Your task to perform on an android device: change the clock display to digital Image 0: 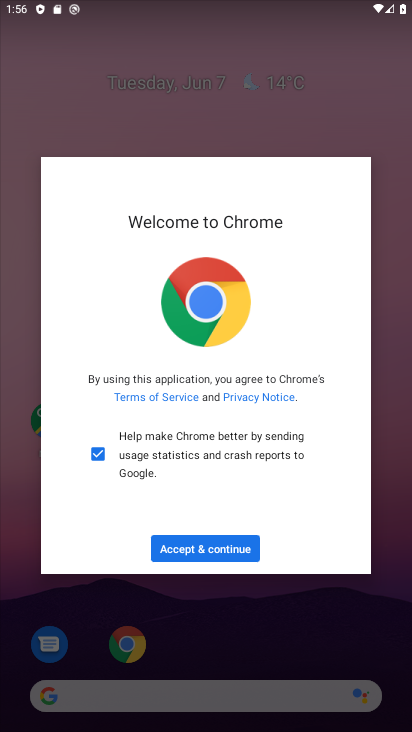
Step 0: press home button
Your task to perform on an android device: change the clock display to digital Image 1: 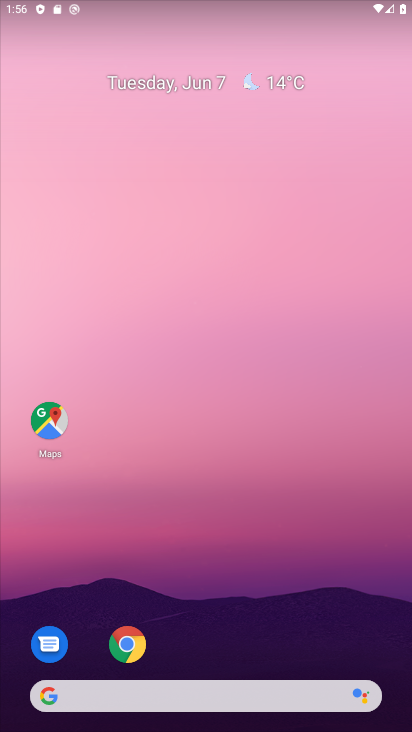
Step 1: drag from (361, 611) to (378, 156)
Your task to perform on an android device: change the clock display to digital Image 2: 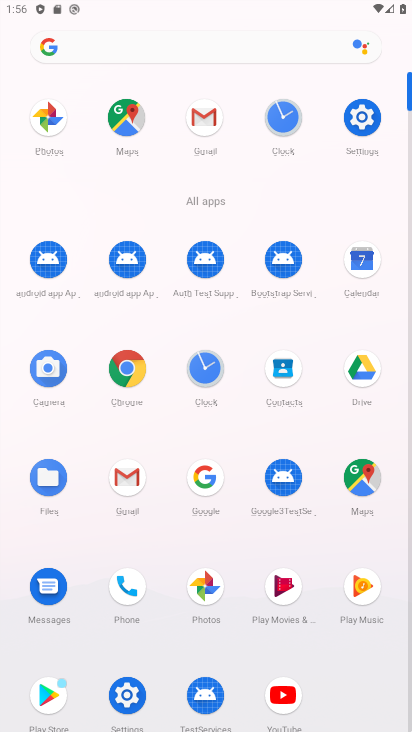
Step 2: click (211, 379)
Your task to perform on an android device: change the clock display to digital Image 3: 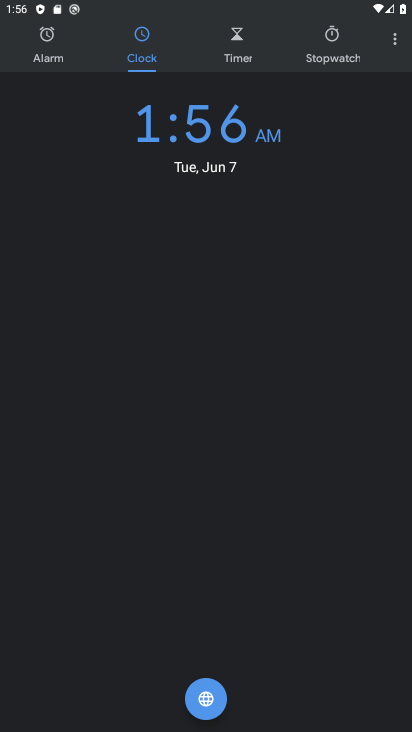
Step 3: click (394, 43)
Your task to perform on an android device: change the clock display to digital Image 4: 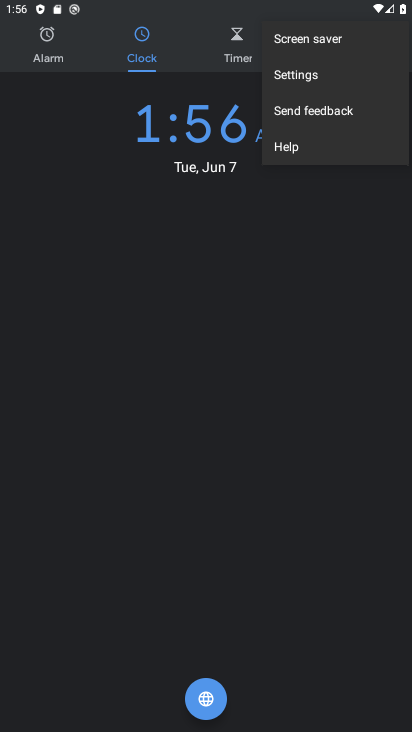
Step 4: click (311, 84)
Your task to perform on an android device: change the clock display to digital Image 5: 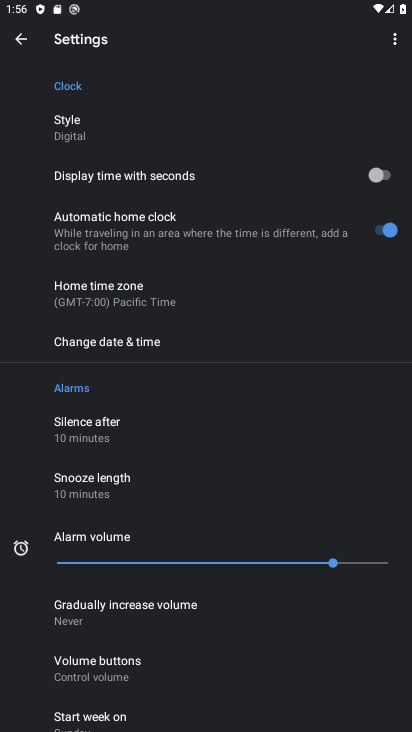
Step 5: task complete